Your task to perform on an android device: Go to Maps Image 0: 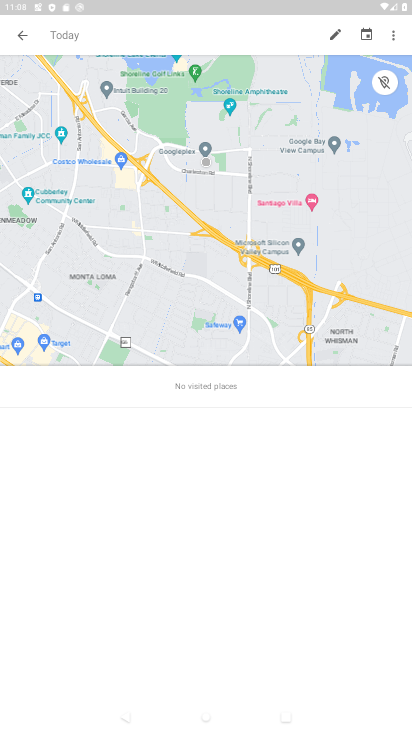
Step 0: task complete